Your task to perform on an android device: delete the emails in spam in the gmail app Image 0: 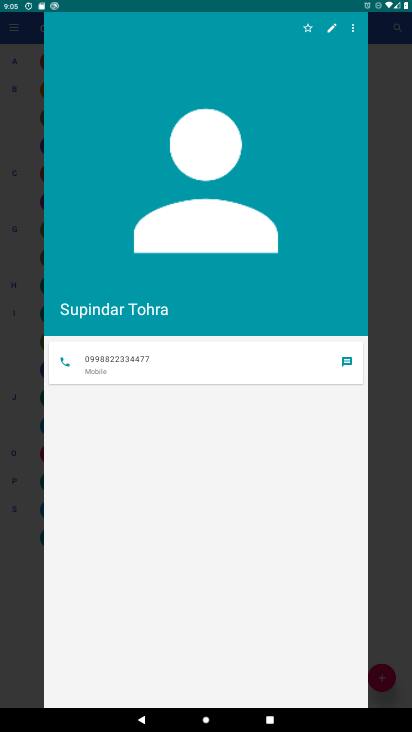
Step 0: press home button
Your task to perform on an android device: delete the emails in spam in the gmail app Image 1: 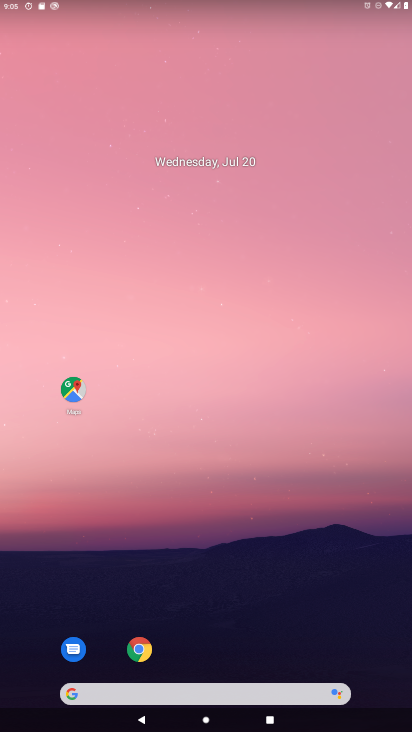
Step 1: drag from (170, 695) to (163, 81)
Your task to perform on an android device: delete the emails in spam in the gmail app Image 2: 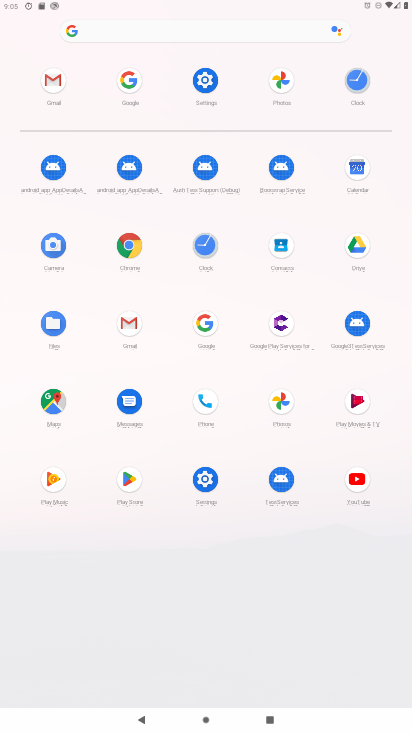
Step 2: click (129, 321)
Your task to perform on an android device: delete the emails in spam in the gmail app Image 3: 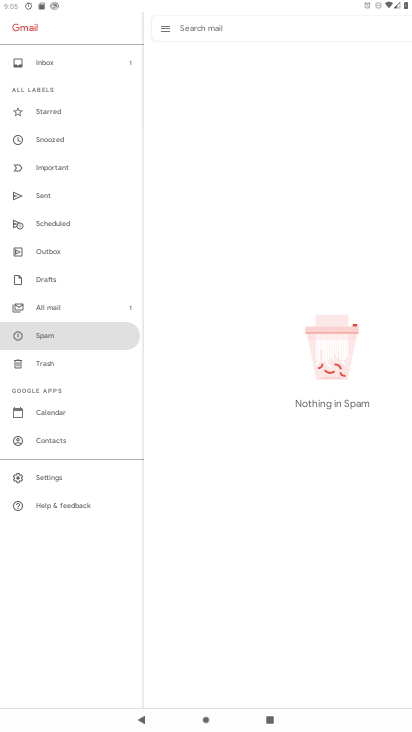
Step 3: click (109, 329)
Your task to perform on an android device: delete the emails in spam in the gmail app Image 4: 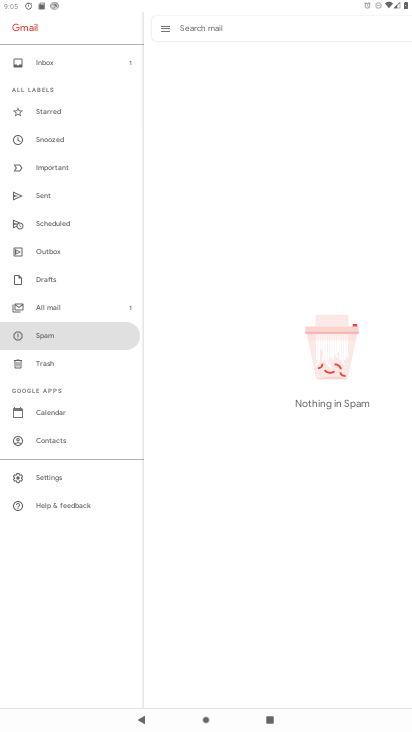
Step 4: task complete